Your task to perform on an android device: Add "logitech g933" to the cart on costco.com, then select checkout. Image 0: 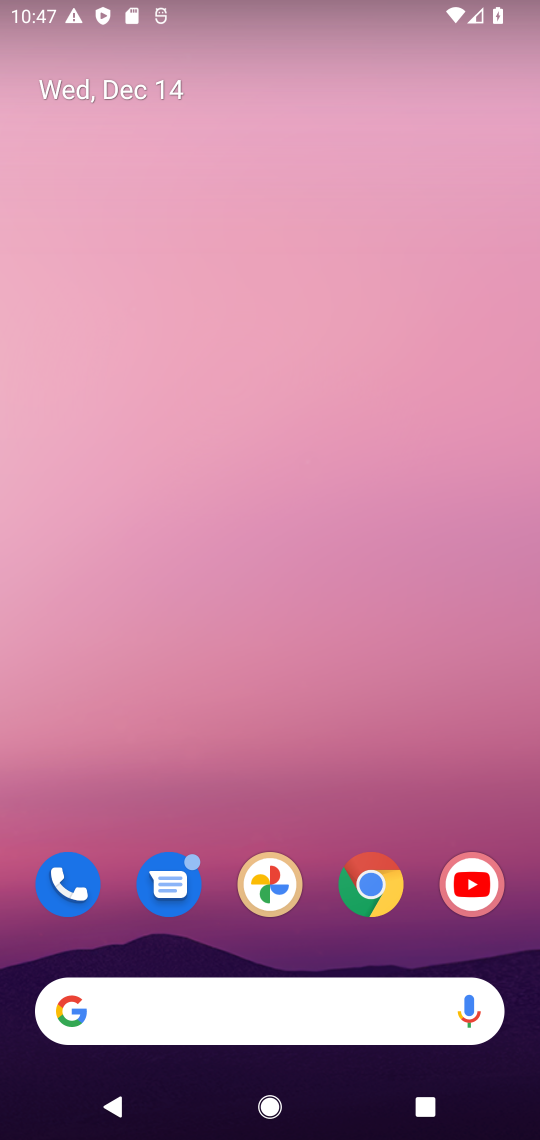
Step 0: click (357, 898)
Your task to perform on an android device: Add "logitech g933" to the cart on costco.com, then select checkout. Image 1: 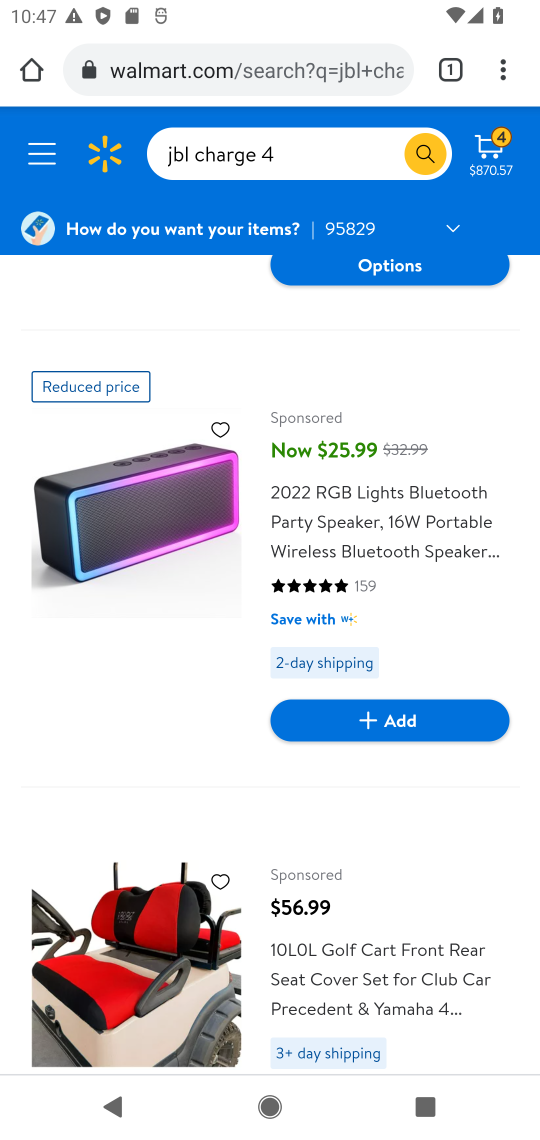
Step 1: click (182, 76)
Your task to perform on an android device: Add "logitech g933" to the cart on costco.com, then select checkout. Image 2: 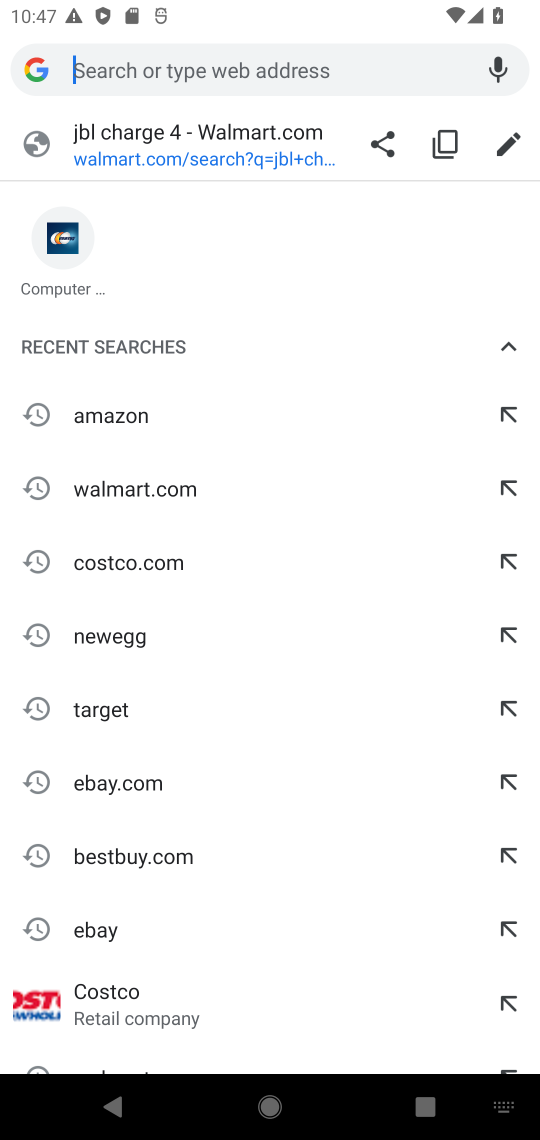
Step 2: type "costco.com"
Your task to perform on an android device: Add "logitech g933" to the cart on costco.com, then select checkout. Image 3: 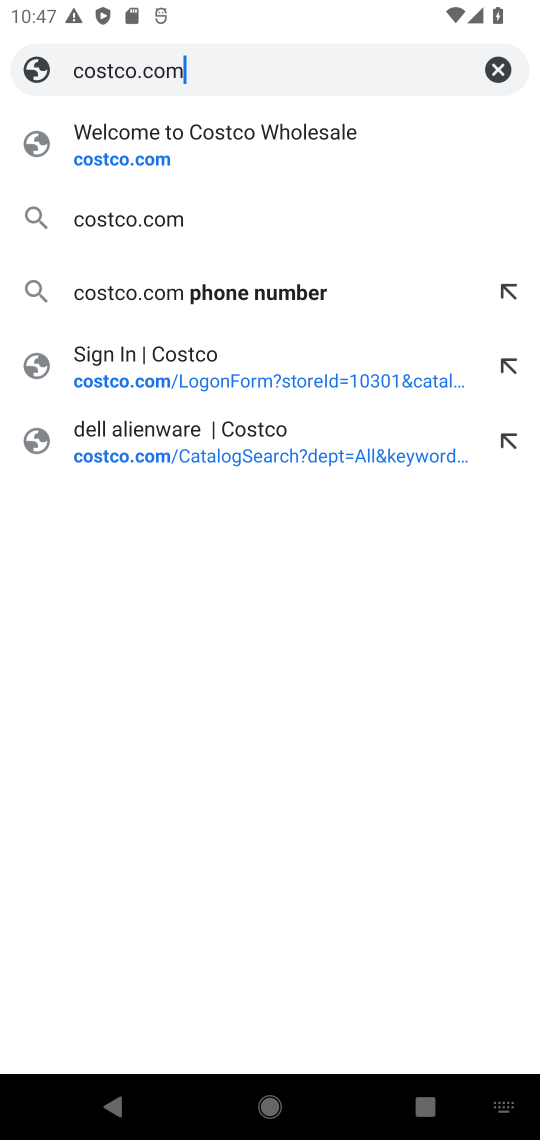
Step 3: press enter
Your task to perform on an android device: Add "logitech g933" to the cart on costco.com, then select checkout. Image 4: 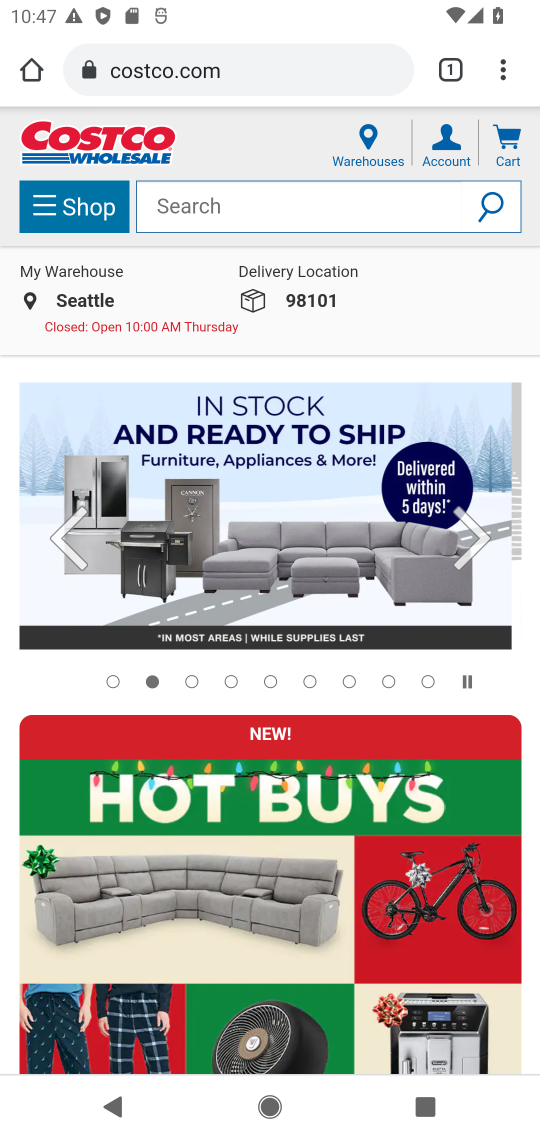
Step 4: click (240, 217)
Your task to perform on an android device: Add "logitech g933" to the cart on costco.com, then select checkout. Image 5: 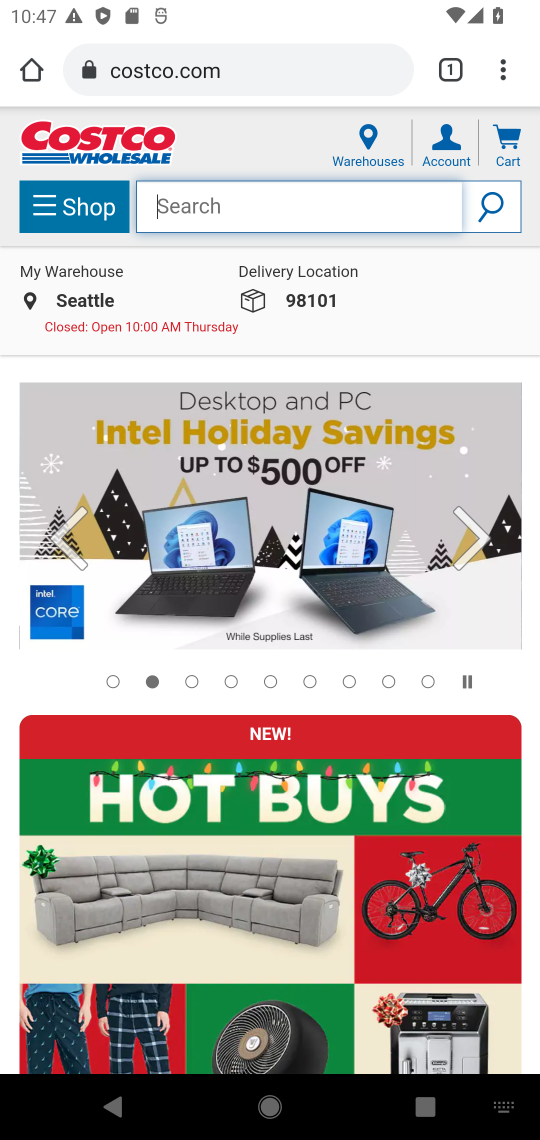
Step 5: type "logitech g933"
Your task to perform on an android device: Add "logitech g933" to the cart on costco.com, then select checkout. Image 6: 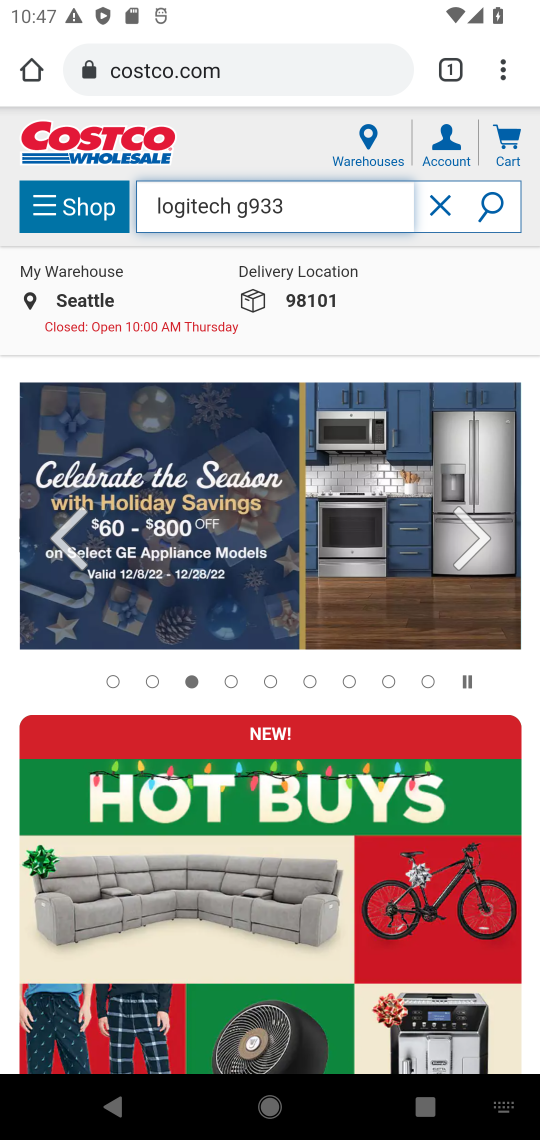
Step 6: click (491, 209)
Your task to perform on an android device: Add "logitech g933" to the cart on costco.com, then select checkout. Image 7: 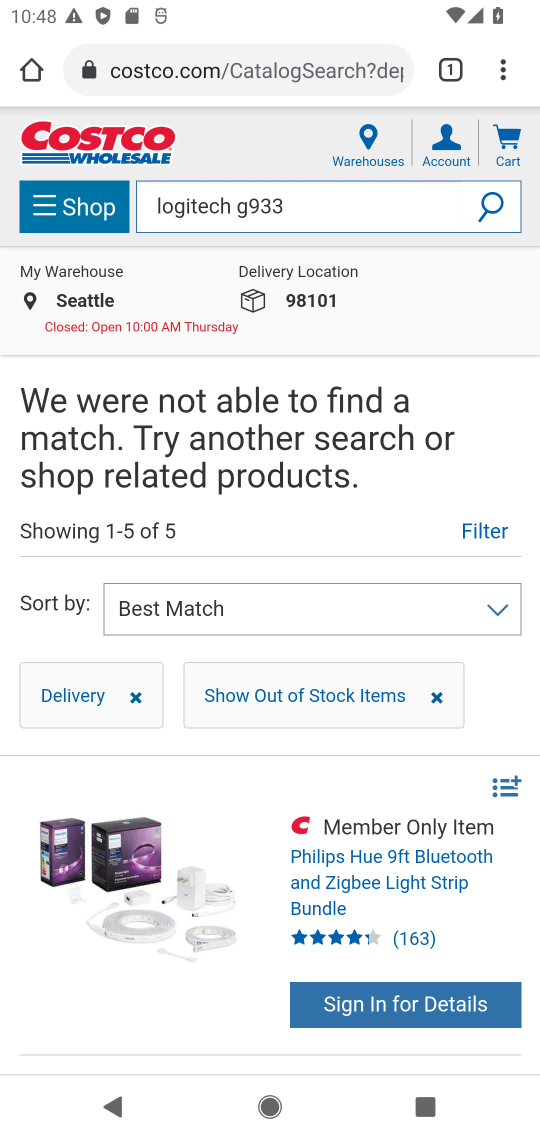
Step 7: drag from (482, 898) to (467, 456)
Your task to perform on an android device: Add "logitech g933" to the cart on costco.com, then select checkout. Image 8: 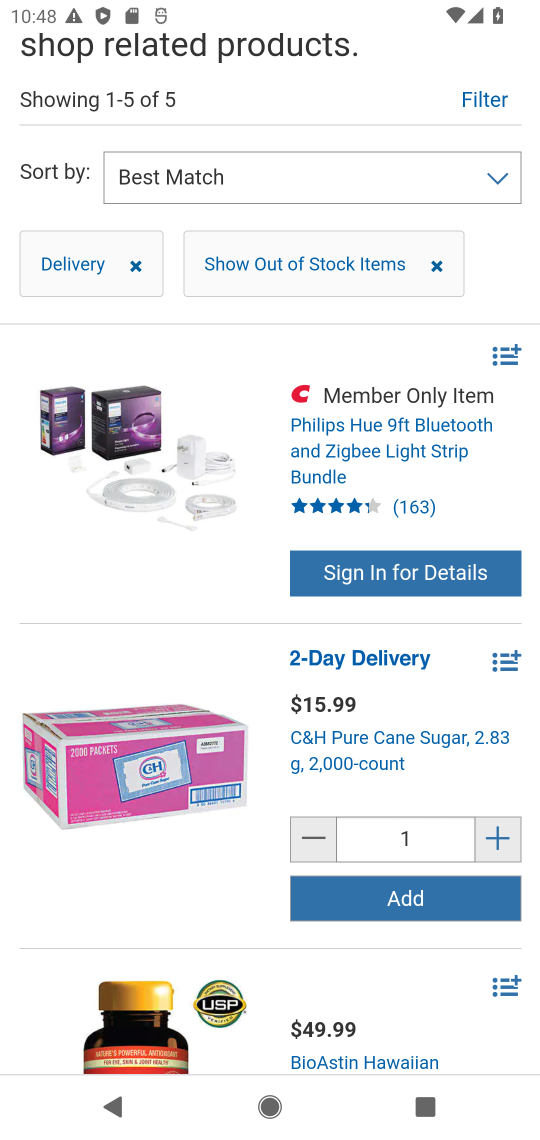
Step 8: drag from (447, 722) to (410, 830)
Your task to perform on an android device: Add "logitech g933" to the cart on costco.com, then select checkout. Image 9: 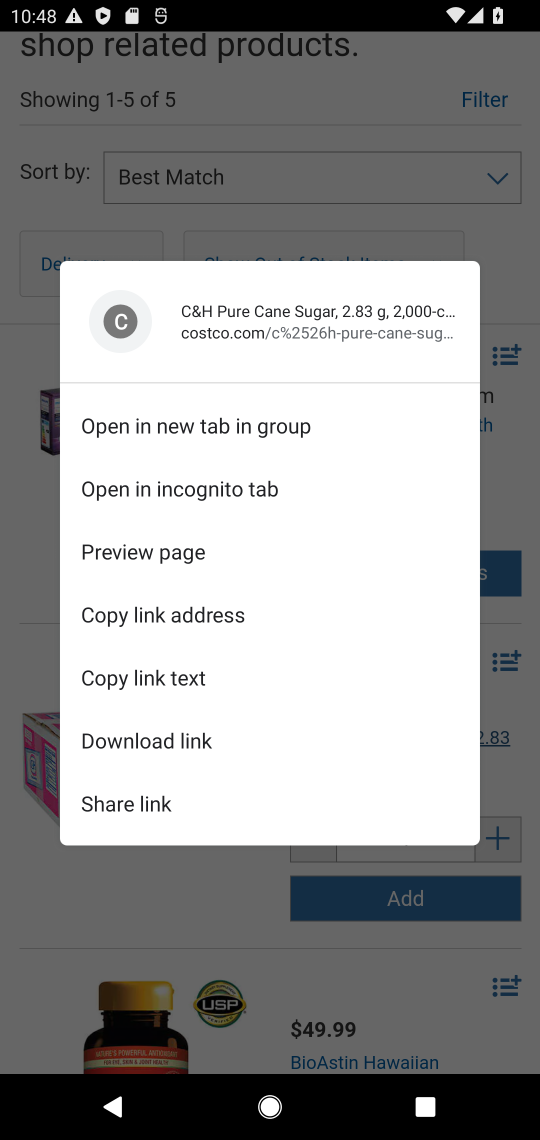
Step 9: click (534, 458)
Your task to perform on an android device: Add "logitech g933" to the cart on costco.com, then select checkout. Image 10: 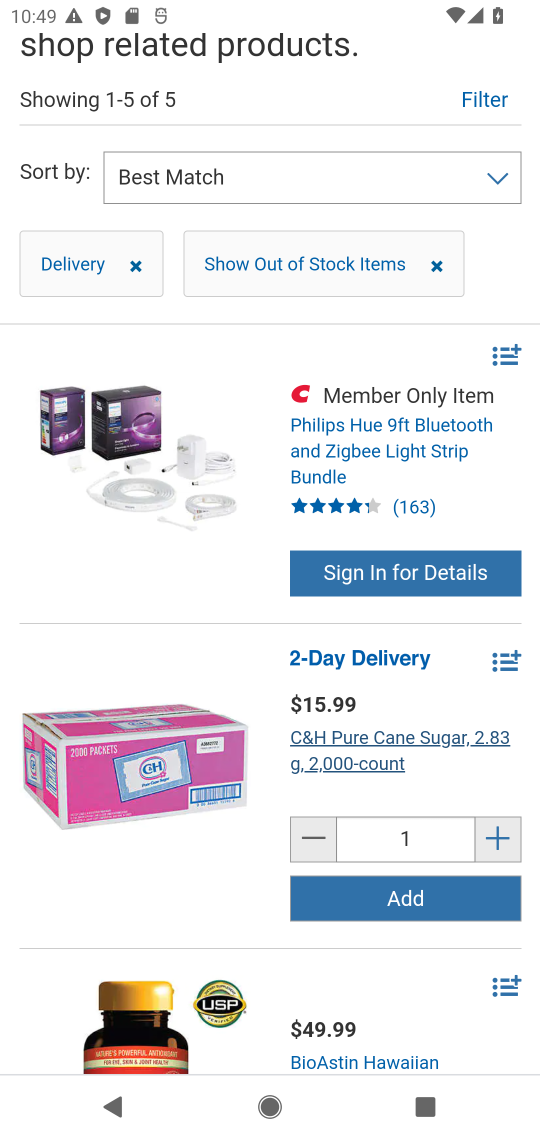
Step 10: task complete